Your task to perform on an android device: What's the weather going to be this weekend? Image 0: 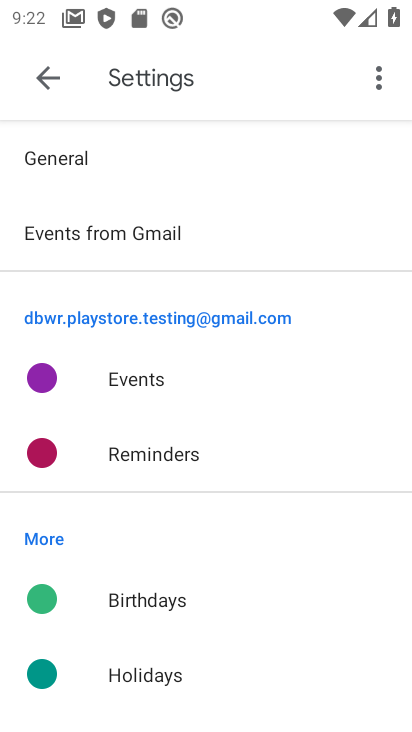
Step 0: press home button
Your task to perform on an android device: What's the weather going to be this weekend? Image 1: 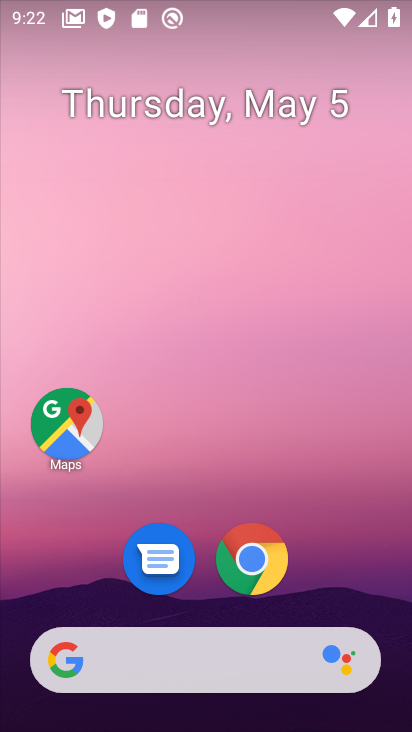
Step 1: click (167, 661)
Your task to perform on an android device: What's the weather going to be this weekend? Image 2: 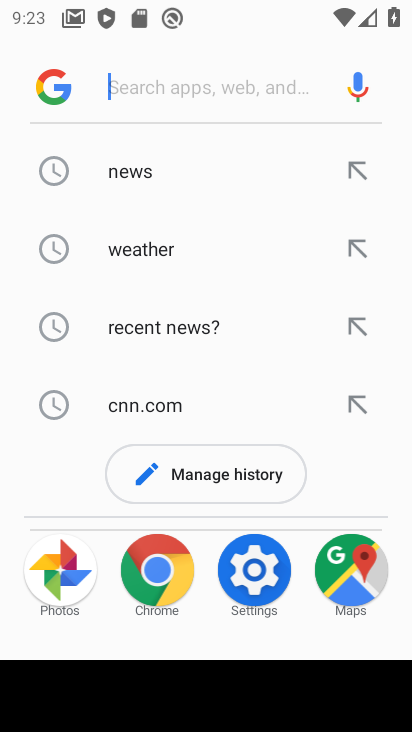
Step 2: click (191, 243)
Your task to perform on an android device: What's the weather going to be this weekend? Image 3: 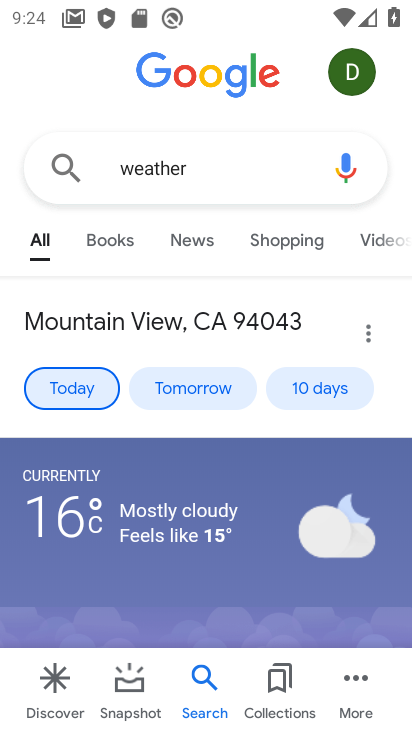
Step 3: task complete